Your task to perform on an android device: find which apps use the phone's location Image 0: 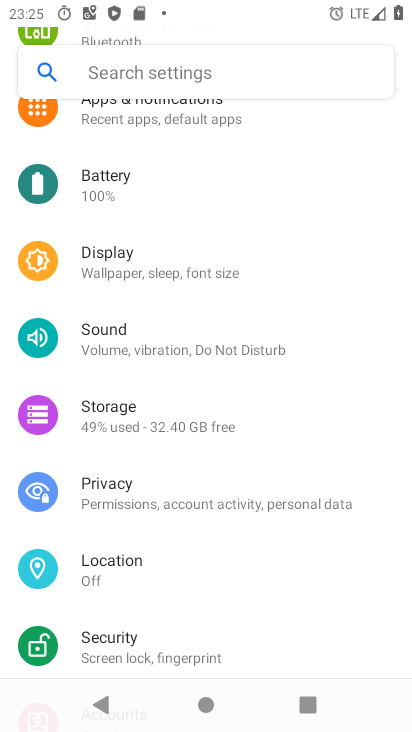
Step 0: click (109, 567)
Your task to perform on an android device: find which apps use the phone's location Image 1: 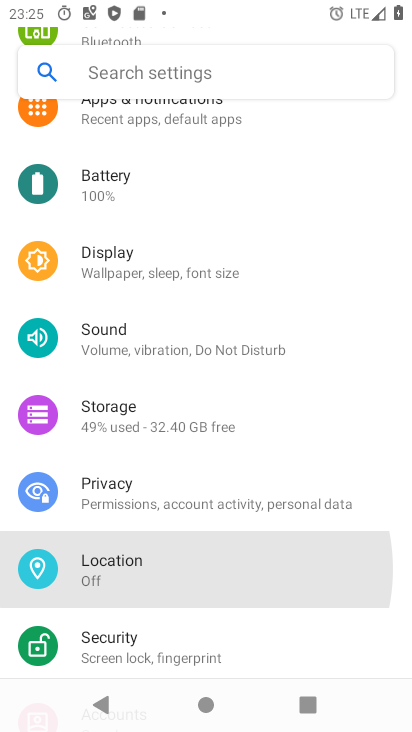
Step 1: click (105, 567)
Your task to perform on an android device: find which apps use the phone's location Image 2: 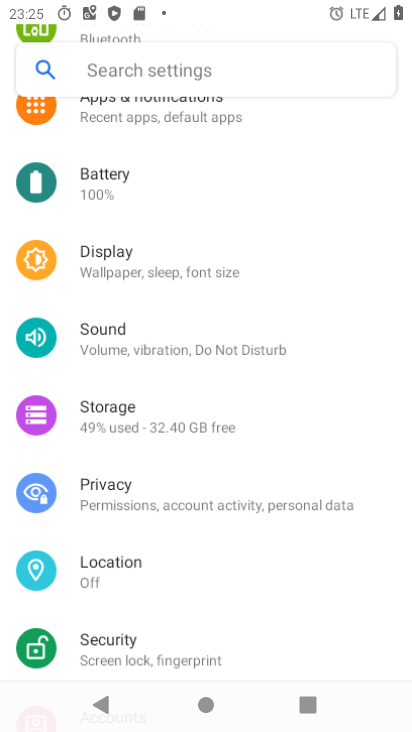
Step 2: click (105, 562)
Your task to perform on an android device: find which apps use the phone's location Image 3: 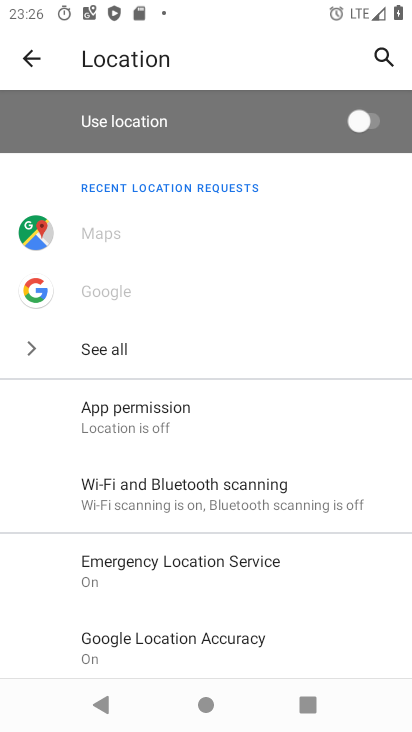
Step 3: drag from (213, 487) to (190, 203)
Your task to perform on an android device: find which apps use the phone's location Image 4: 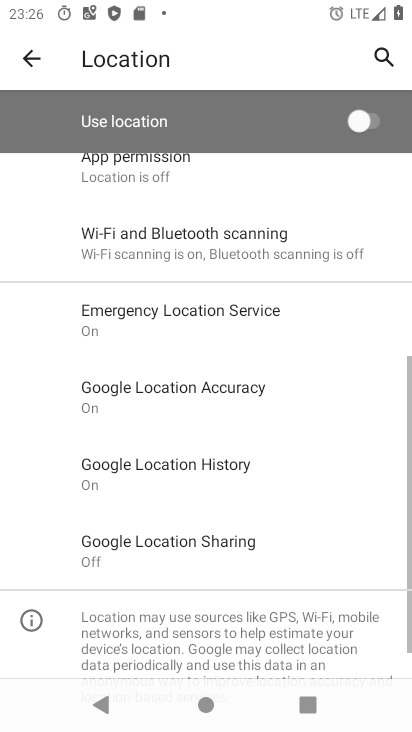
Step 4: drag from (176, 357) to (188, 215)
Your task to perform on an android device: find which apps use the phone's location Image 5: 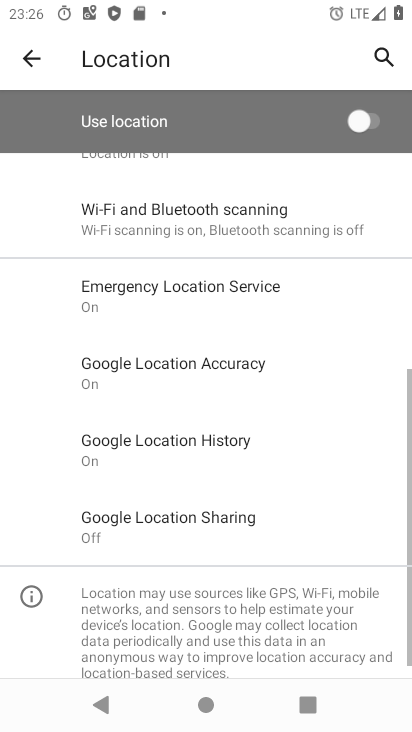
Step 5: drag from (209, 453) to (196, 259)
Your task to perform on an android device: find which apps use the phone's location Image 6: 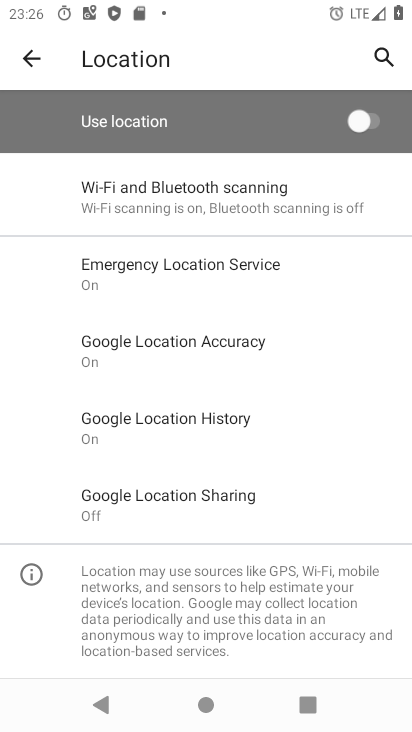
Step 6: drag from (119, 238) to (158, 555)
Your task to perform on an android device: find which apps use the phone's location Image 7: 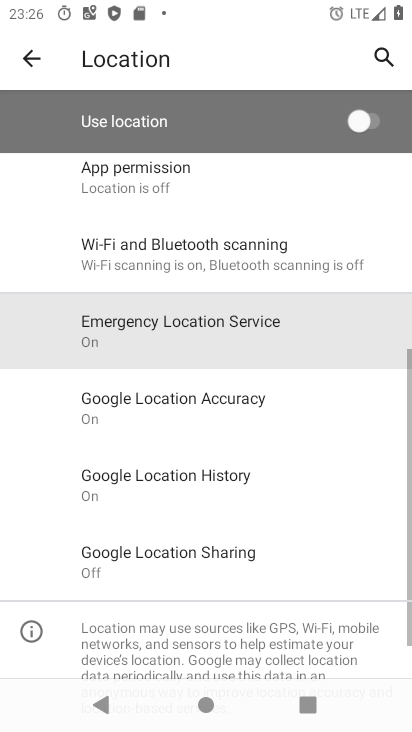
Step 7: drag from (146, 313) to (183, 550)
Your task to perform on an android device: find which apps use the phone's location Image 8: 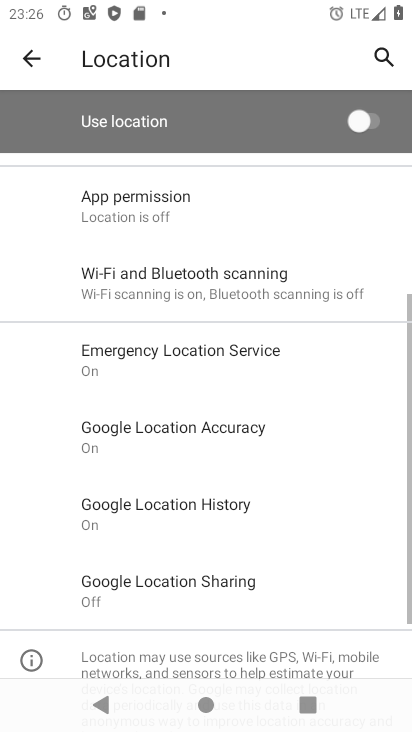
Step 8: drag from (166, 301) to (199, 521)
Your task to perform on an android device: find which apps use the phone's location Image 9: 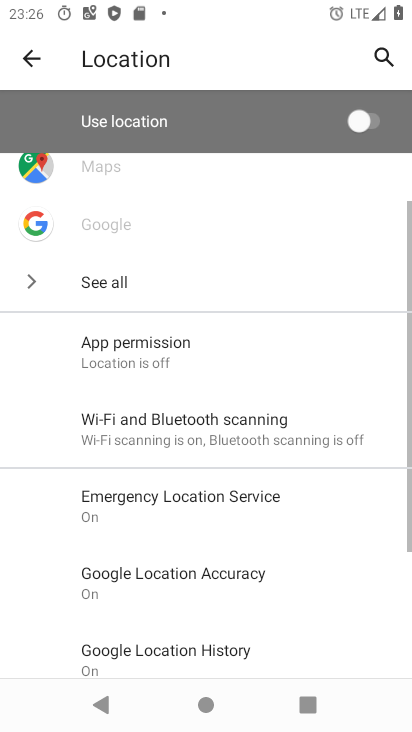
Step 9: drag from (171, 392) to (196, 553)
Your task to perform on an android device: find which apps use the phone's location Image 10: 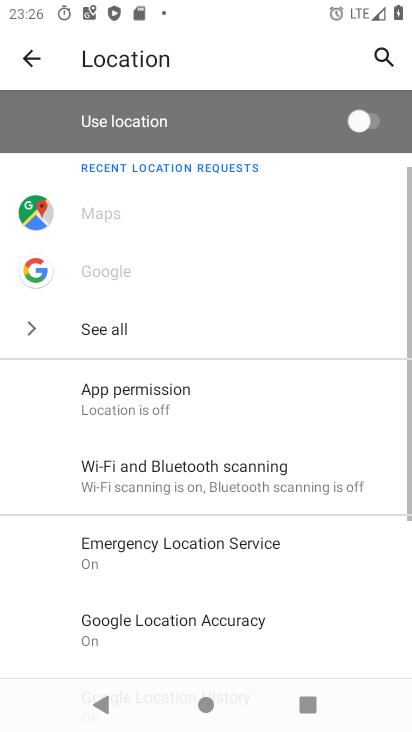
Step 10: drag from (157, 294) to (204, 559)
Your task to perform on an android device: find which apps use the phone's location Image 11: 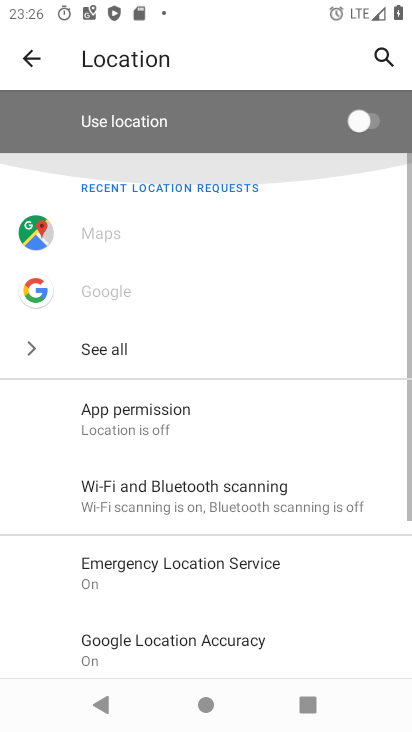
Step 11: drag from (134, 301) to (179, 550)
Your task to perform on an android device: find which apps use the phone's location Image 12: 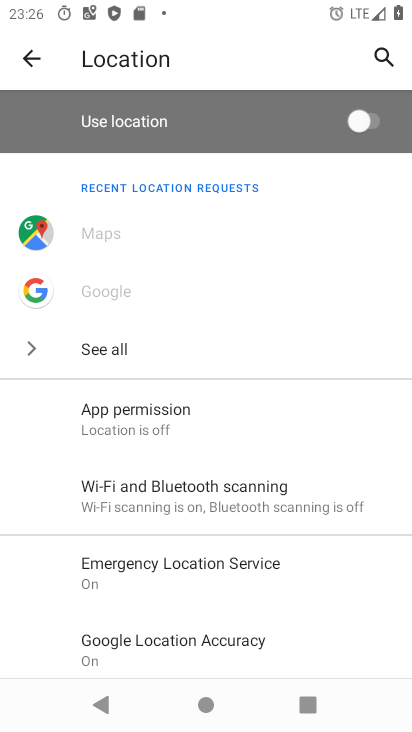
Step 12: drag from (188, 424) to (250, 133)
Your task to perform on an android device: find which apps use the phone's location Image 13: 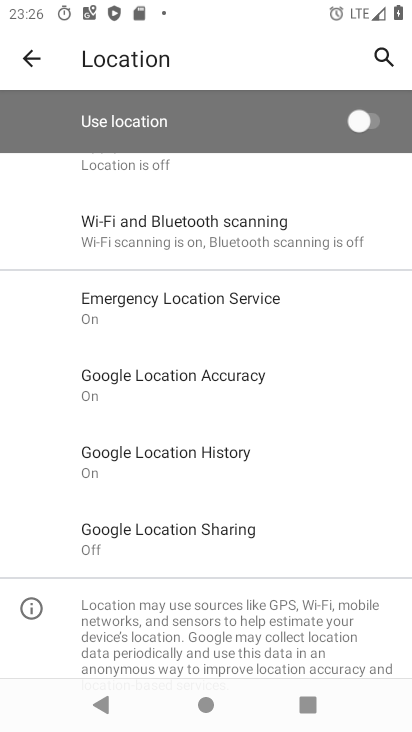
Step 13: drag from (210, 361) to (284, 82)
Your task to perform on an android device: find which apps use the phone's location Image 14: 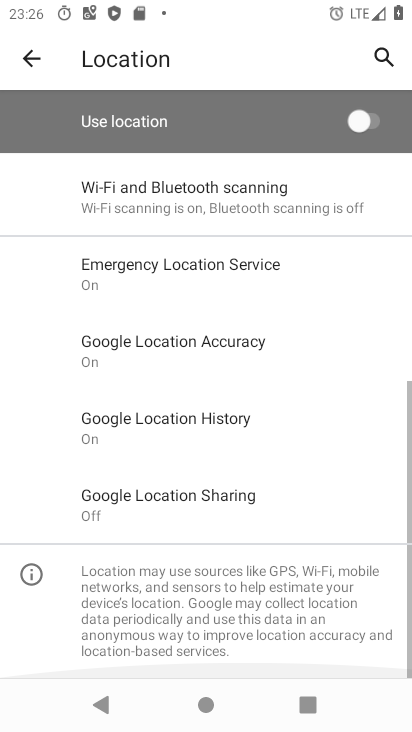
Step 14: drag from (252, 400) to (310, 163)
Your task to perform on an android device: find which apps use the phone's location Image 15: 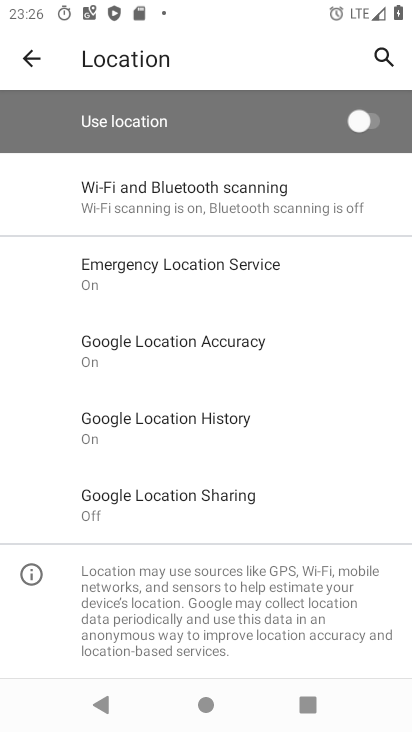
Step 15: click (23, 51)
Your task to perform on an android device: find which apps use the phone's location Image 16: 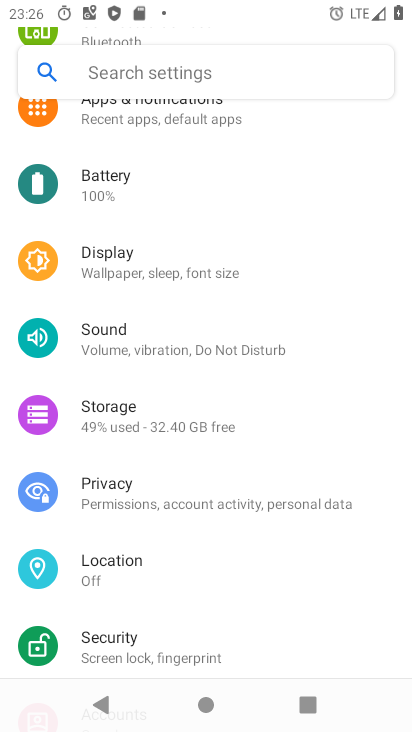
Step 16: drag from (199, 481) to (193, 79)
Your task to perform on an android device: find which apps use the phone's location Image 17: 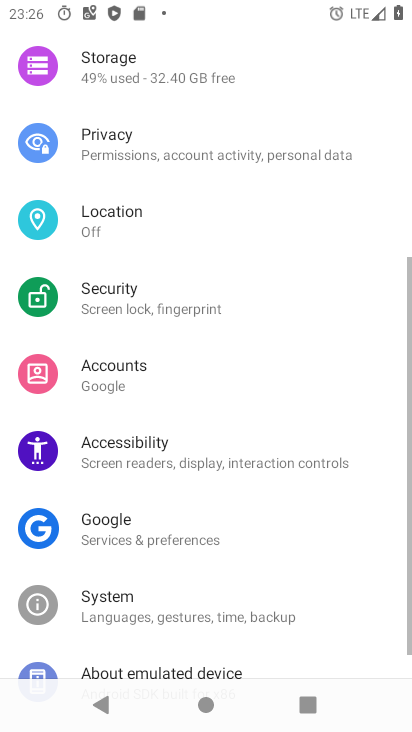
Step 17: drag from (183, 497) to (183, 157)
Your task to perform on an android device: find which apps use the phone's location Image 18: 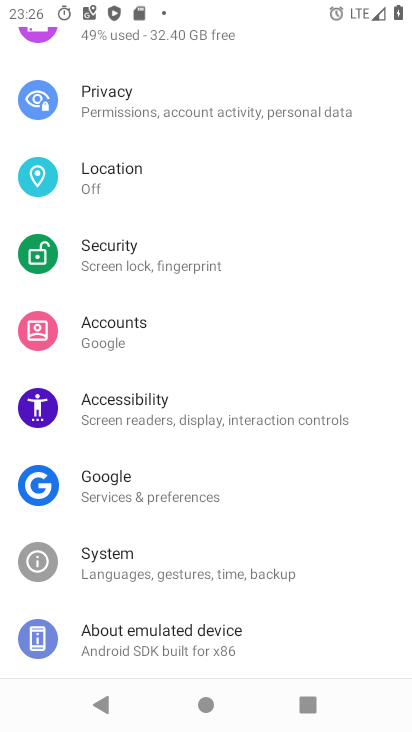
Step 18: click (107, 165)
Your task to perform on an android device: find which apps use the phone's location Image 19: 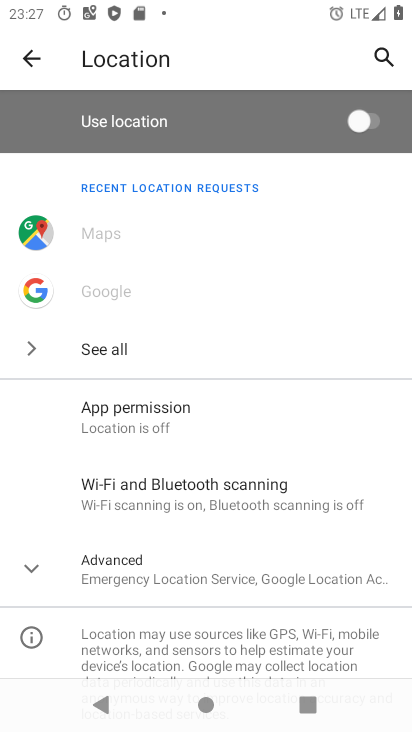
Step 19: click (133, 422)
Your task to perform on an android device: find which apps use the phone's location Image 20: 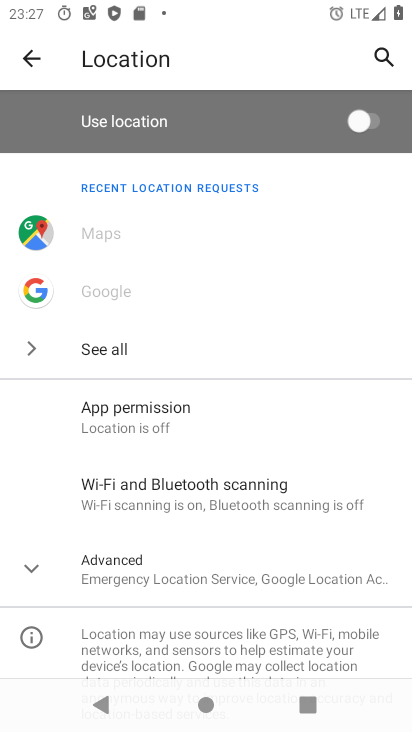
Step 20: click (133, 413)
Your task to perform on an android device: find which apps use the phone's location Image 21: 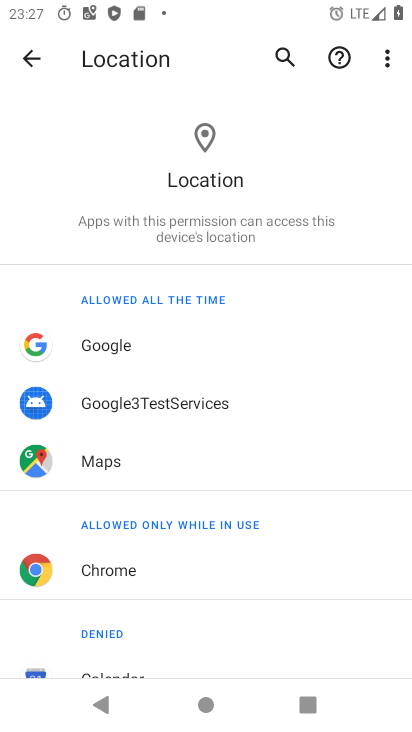
Step 21: click (24, 53)
Your task to perform on an android device: find which apps use the phone's location Image 22: 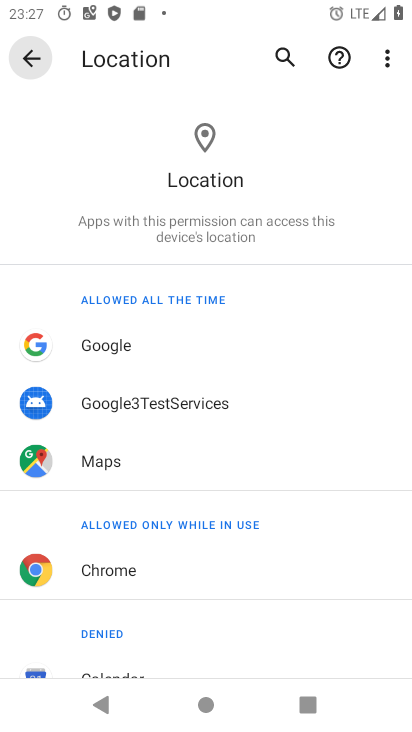
Step 22: click (27, 58)
Your task to perform on an android device: find which apps use the phone's location Image 23: 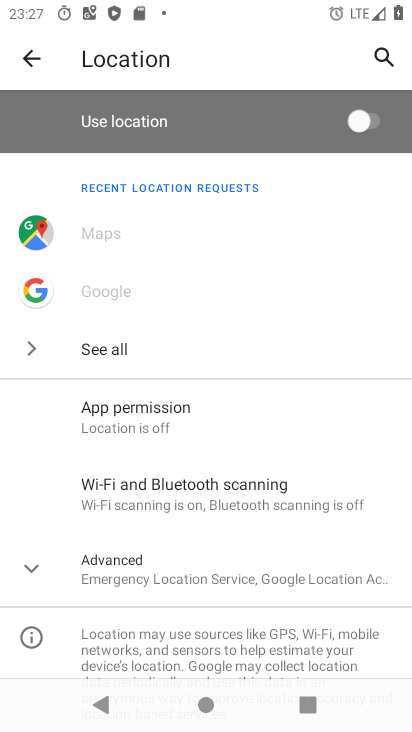
Step 23: click (33, 53)
Your task to perform on an android device: find which apps use the phone's location Image 24: 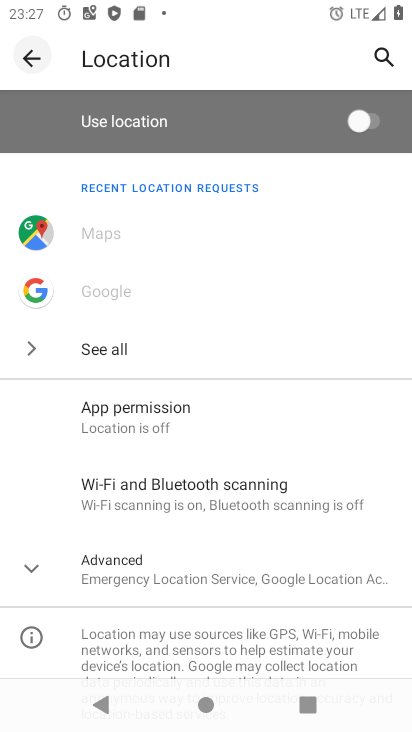
Step 24: click (32, 54)
Your task to perform on an android device: find which apps use the phone's location Image 25: 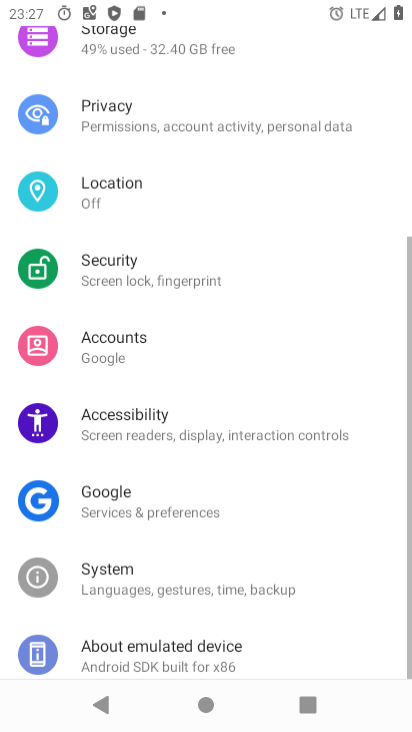
Step 25: click (31, 54)
Your task to perform on an android device: find which apps use the phone's location Image 26: 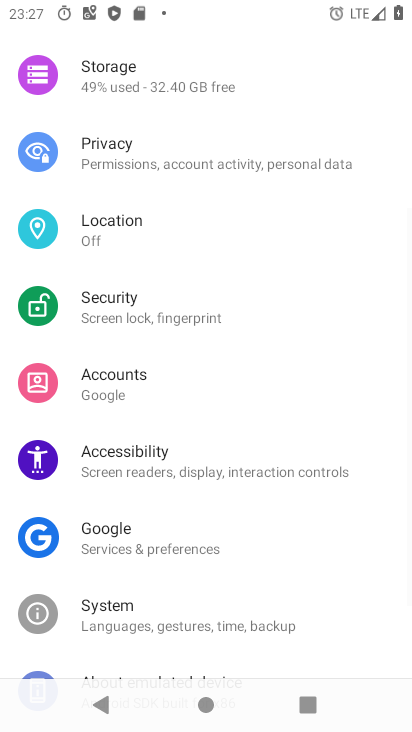
Step 26: click (31, 54)
Your task to perform on an android device: find which apps use the phone's location Image 27: 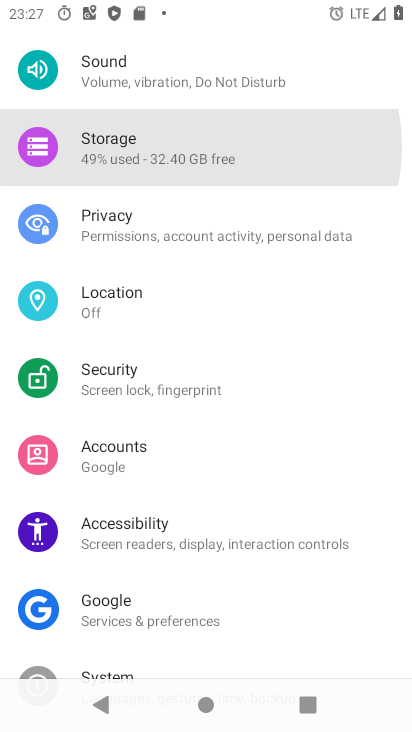
Step 27: click (31, 54)
Your task to perform on an android device: find which apps use the phone's location Image 28: 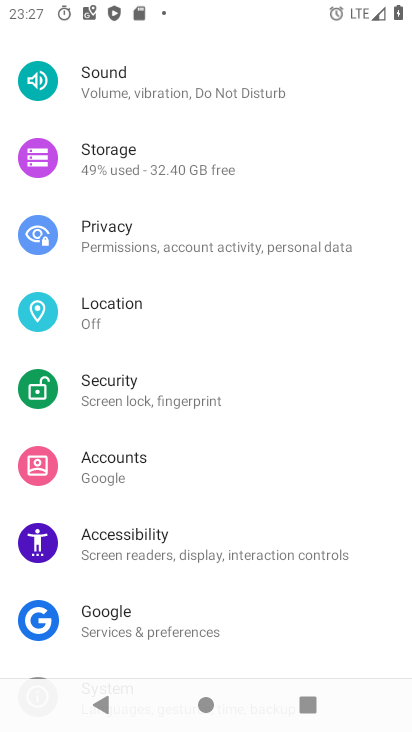
Step 28: task complete